Your task to perform on an android device: search for starred emails in the gmail app Image 0: 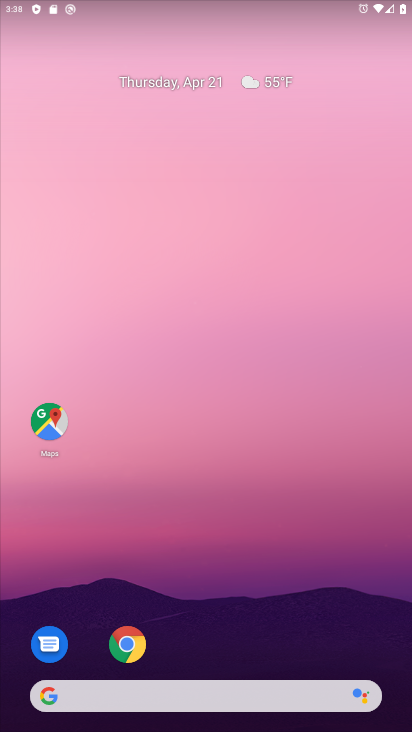
Step 0: drag from (196, 633) to (140, 15)
Your task to perform on an android device: search for starred emails in the gmail app Image 1: 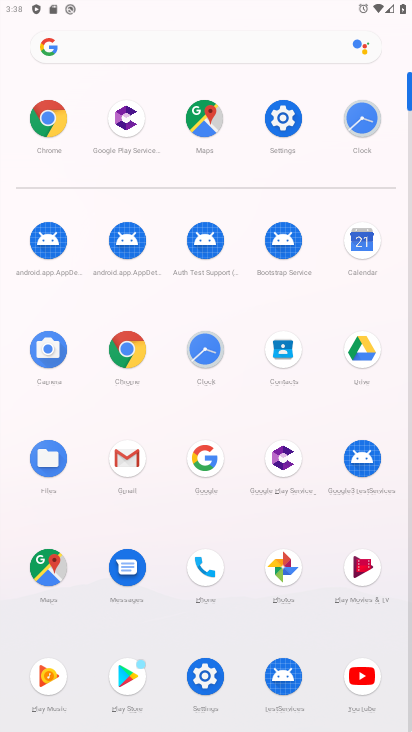
Step 1: click (106, 457)
Your task to perform on an android device: search for starred emails in the gmail app Image 2: 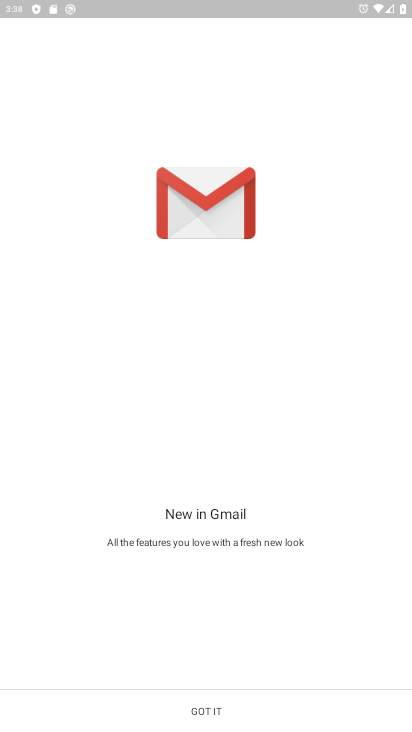
Step 2: click (210, 708)
Your task to perform on an android device: search for starred emails in the gmail app Image 3: 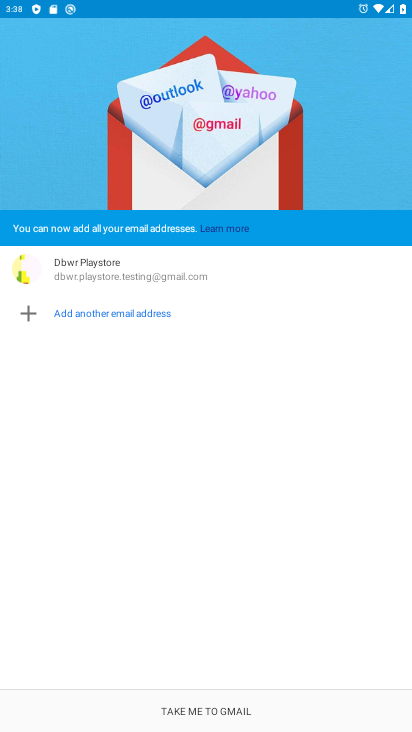
Step 3: click (210, 698)
Your task to perform on an android device: search for starred emails in the gmail app Image 4: 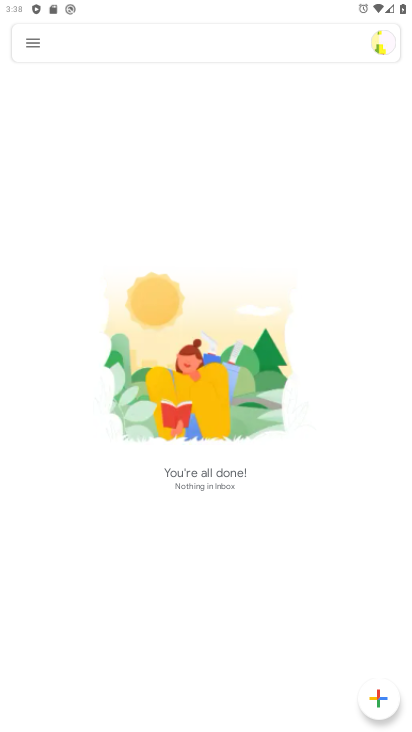
Step 4: click (33, 43)
Your task to perform on an android device: search for starred emails in the gmail app Image 5: 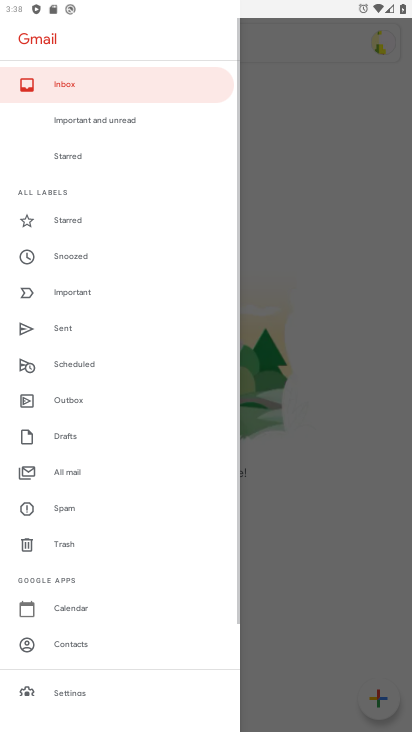
Step 5: click (93, 248)
Your task to perform on an android device: search for starred emails in the gmail app Image 6: 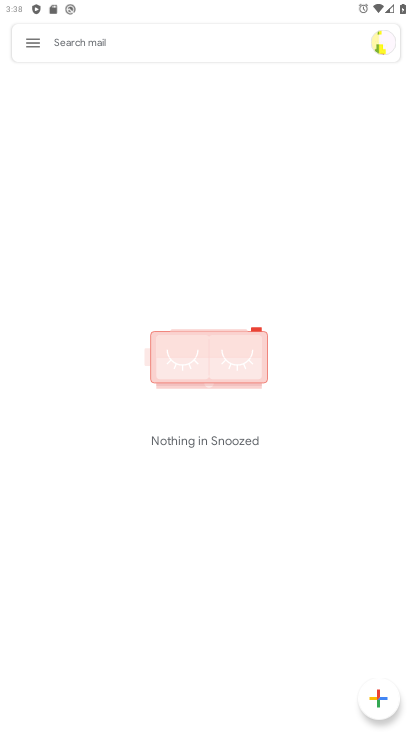
Step 6: click (26, 41)
Your task to perform on an android device: search for starred emails in the gmail app Image 7: 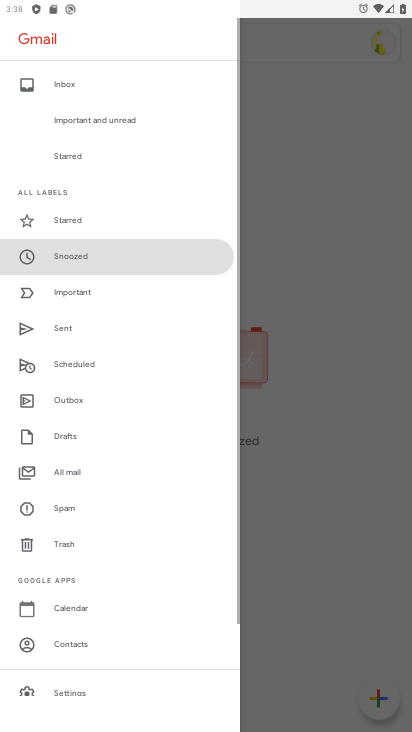
Step 7: click (84, 215)
Your task to perform on an android device: search for starred emails in the gmail app Image 8: 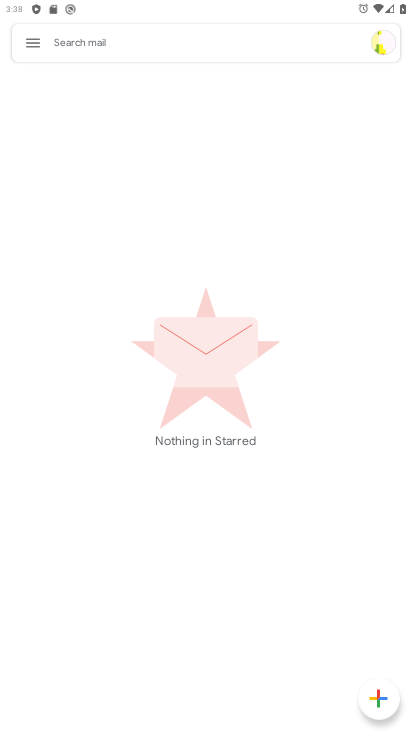
Step 8: task complete